Your task to perform on an android device: Play the last video I watched on Youtube Image 0: 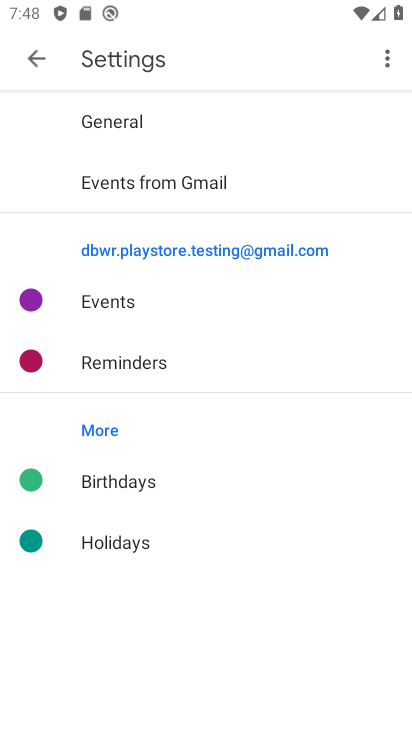
Step 0: press home button
Your task to perform on an android device: Play the last video I watched on Youtube Image 1: 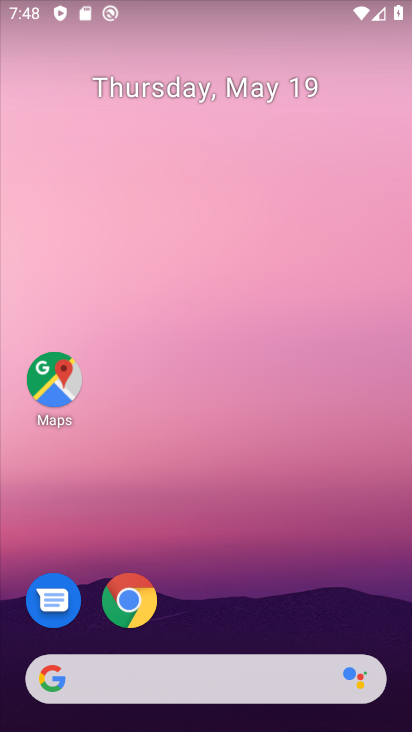
Step 1: drag from (379, 622) to (381, 238)
Your task to perform on an android device: Play the last video I watched on Youtube Image 2: 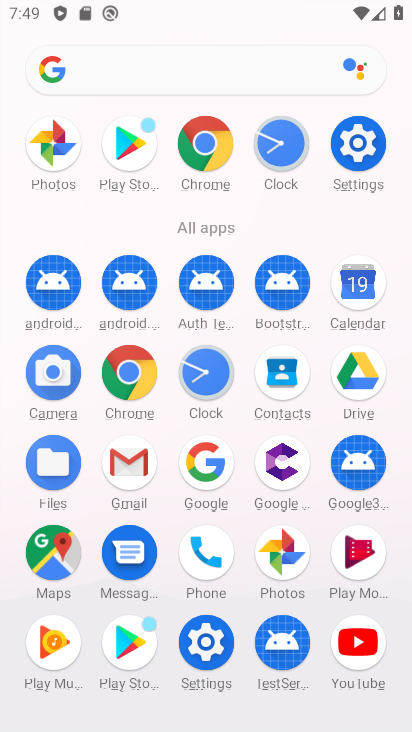
Step 2: click (365, 650)
Your task to perform on an android device: Play the last video I watched on Youtube Image 3: 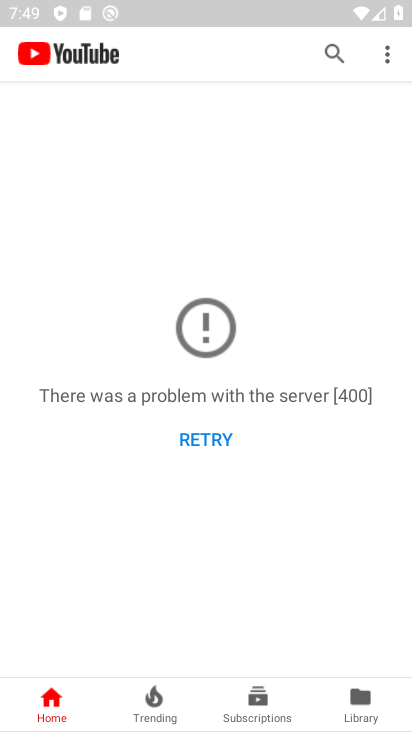
Step 3: click (362, 696)
Your task to perform on an android device: Play the last video I watched on Youtube Image 4: 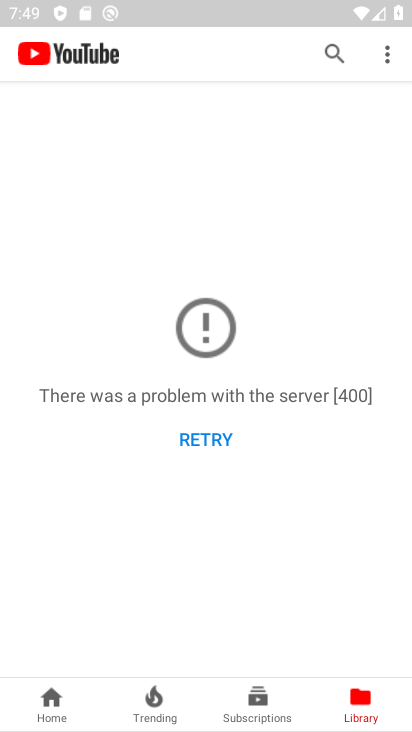
Step 4: press home button
Your task to perform on an android device: Play the last video I watched on Youtube Image 5: 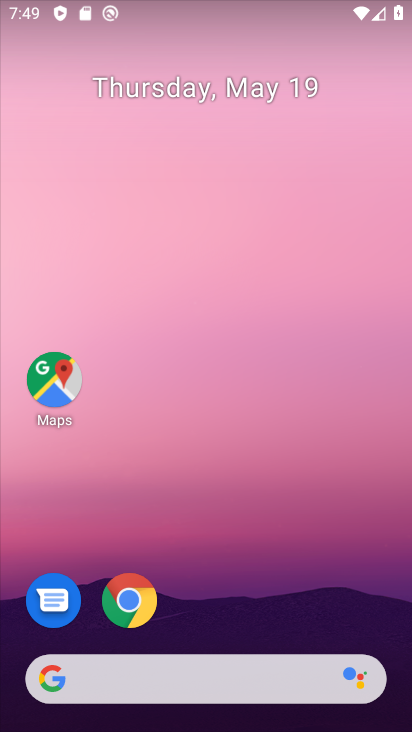
Step 5: drag from (380, 606) to (381, 241)
Your task to perform on an android device: Play the last video I watched on Youtube Image 6: 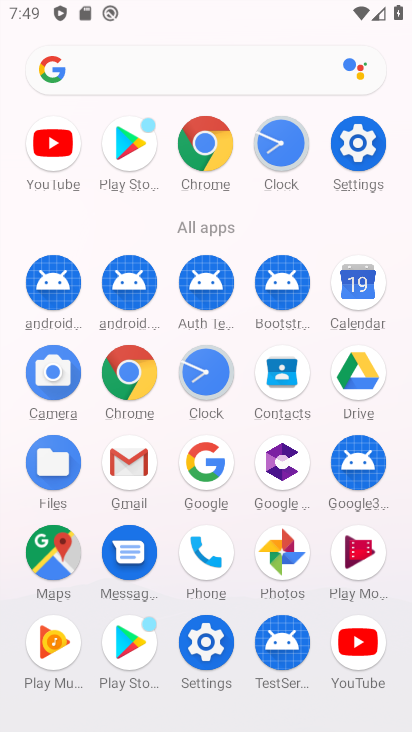
Step 6: click (56, 172)
Your task to perform on an android device: Play the last video I watched on Youtube Image 7: 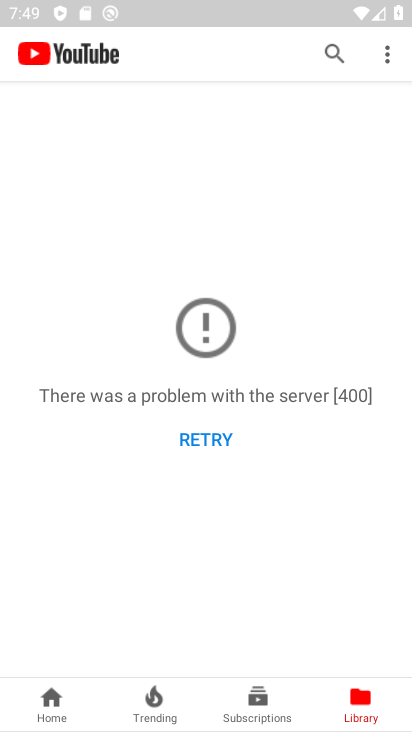
Step 7: task complete